Your task to perform on an android device: make emails show in primary in the gmail app Image 0: 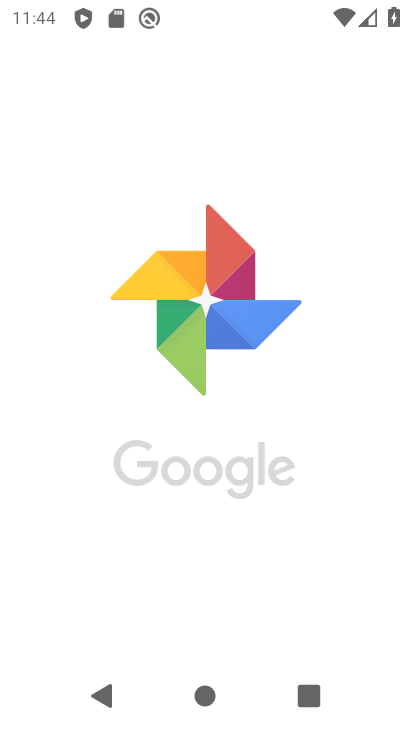
Step 0: click (139, 104)
Your task to perform on an android device: make emails show in primary in the gmail app Image 1: 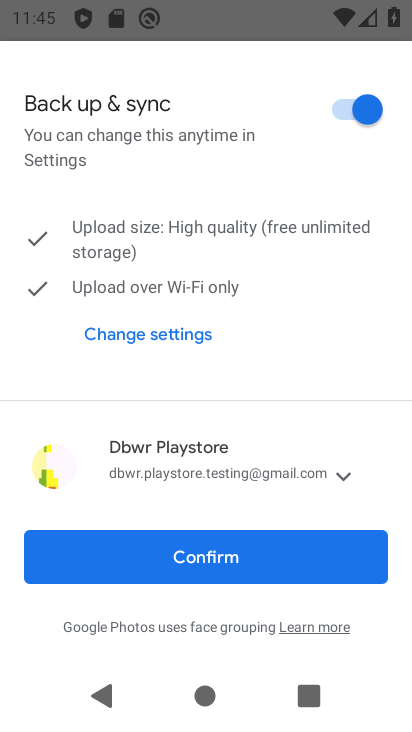
Step 1: press home button
Your task to perform on an android device: make emails show in primary in the gmail app Image 2: 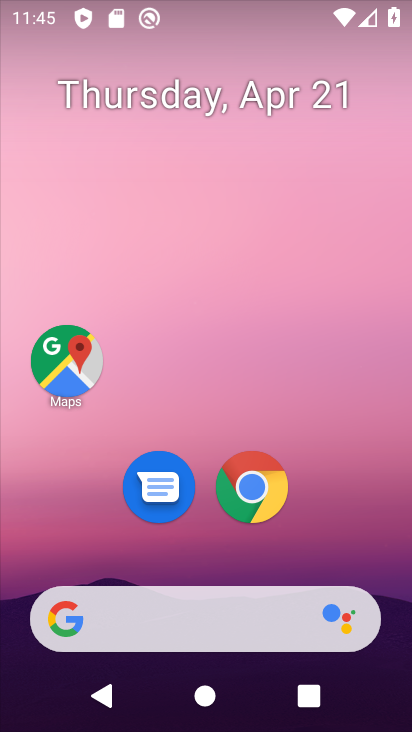
Step 2: click (101, 698)
Your task to perform on an android device: make emails show in primary in the gmail app Image 3: 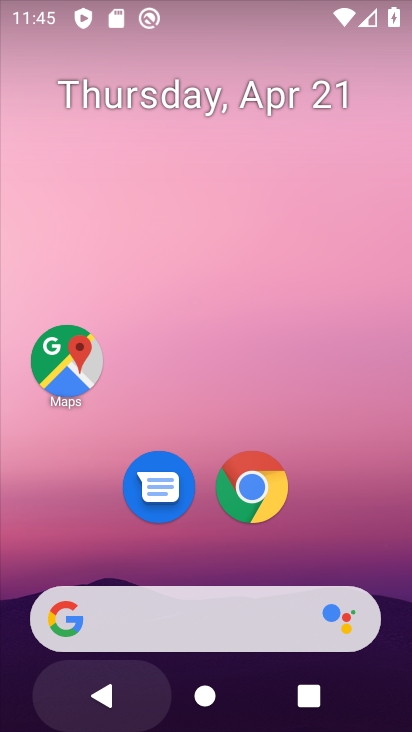
Step 3: drag from (160, 704) to (195, 201)
Your task to perform on an android device: make emails show in primary in the gmail app Image 4: 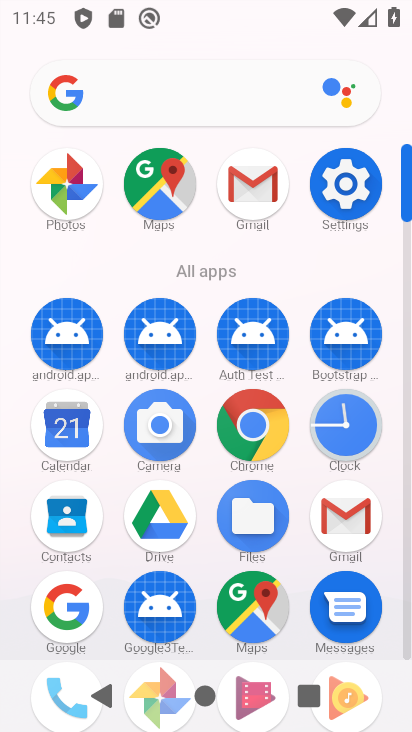
Step 4: click (260, 194)
Your task to perform on an android device: make emails show in primary in the gmail app Image 5: 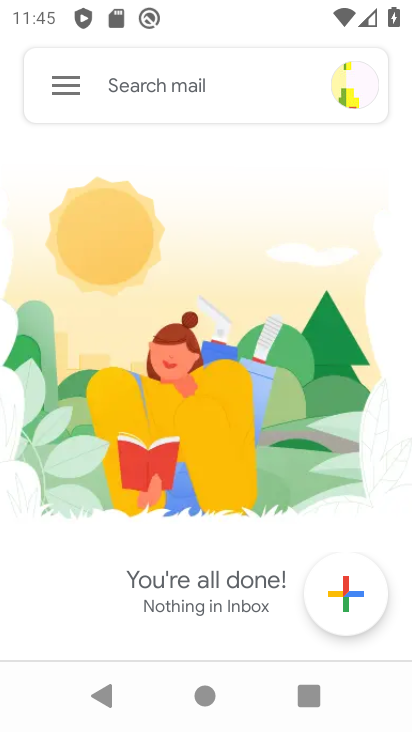
Step 5: click (63, 79)
Your task to perform on an android device: make emails show in primary in the gmail app Image 6: 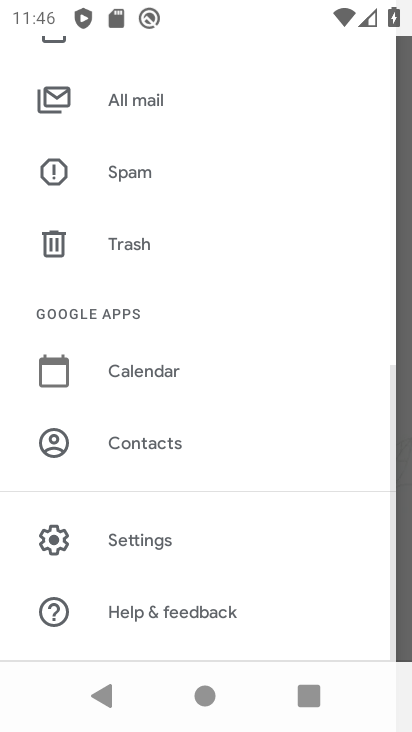
Step 6: task complete